Your task to perform on an android device: turn off picture-in-picture Image 0: 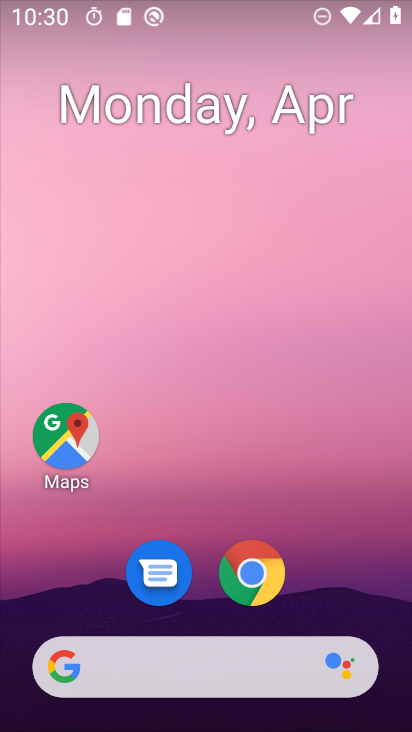
Step 0: click (262, 578)
Your task to perform on an android device: turn off picture-in-picture Image 1: 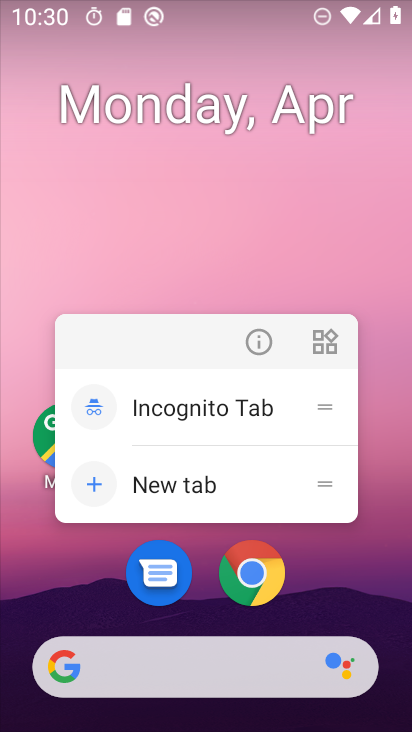
Step 1: click (262, 578)
Your task to perform on an android device: turn off picture-in-picture Image 2: 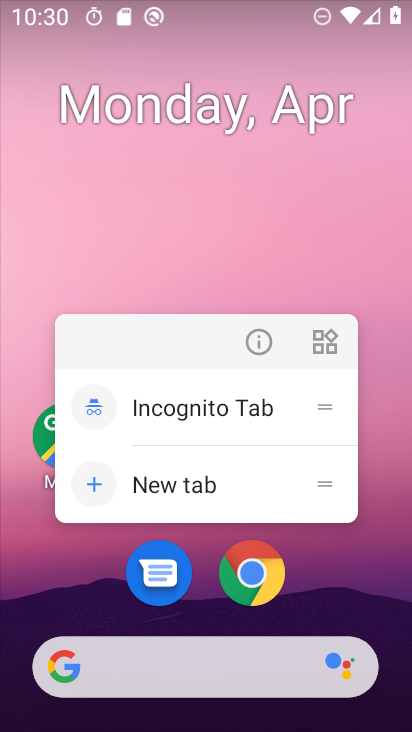
Step 2: click (262, 578)
Your task to perform on an android device: turn off picture-in-picture Image 3: 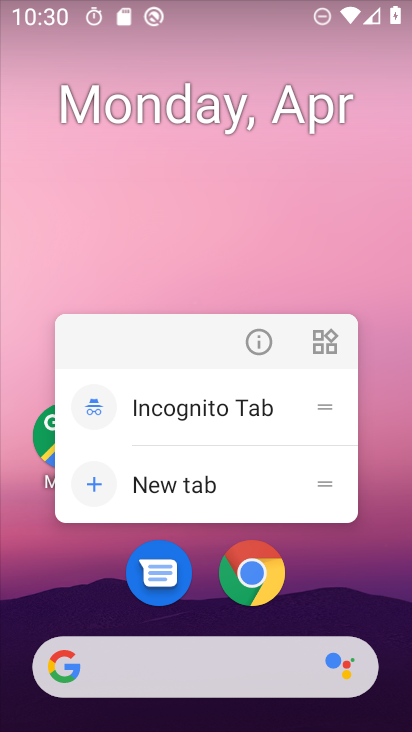
Step 3: click (262, 578)
Your task to perform on an android device: turn off picture-in-picture Image 4: 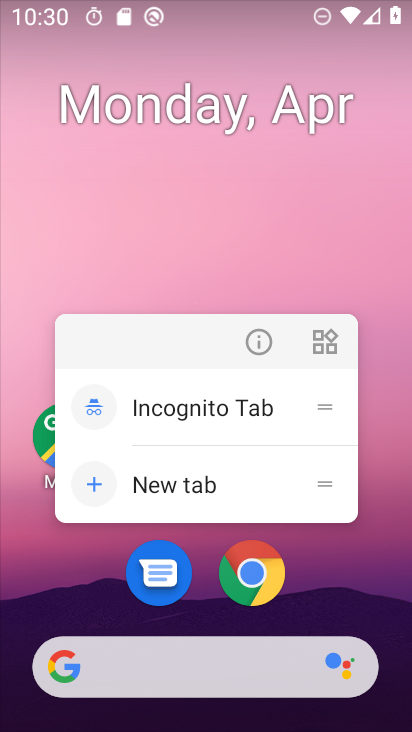
Step 4: click (261, 335)
Your task to perform on an android device: turn off picture-in-picture Image 5: 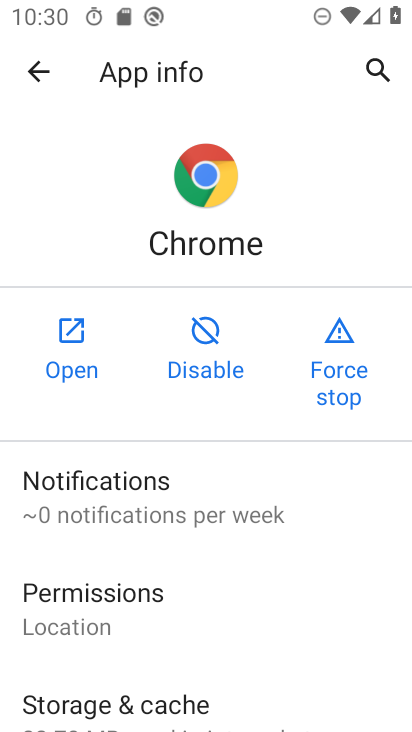
Step 5: drag from (257, 636) to (282, 225)
Your task to perform on an android device: turn off picture-in-picture Image 6: 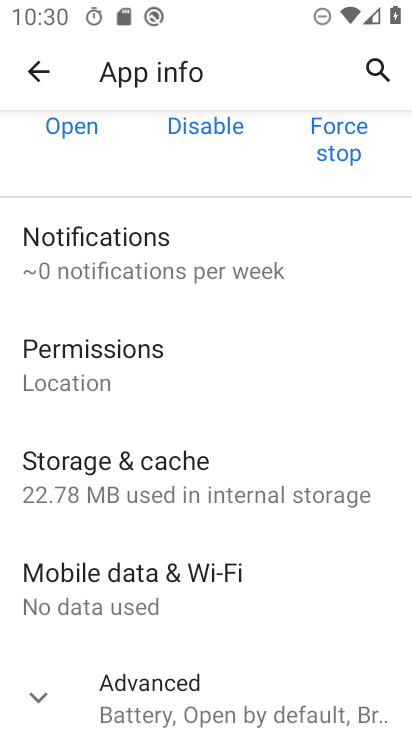
Step 6: drag from (319, 659) to (356, 344)
Your task to perform on an android device: turn off picture-in-picture Image 7: 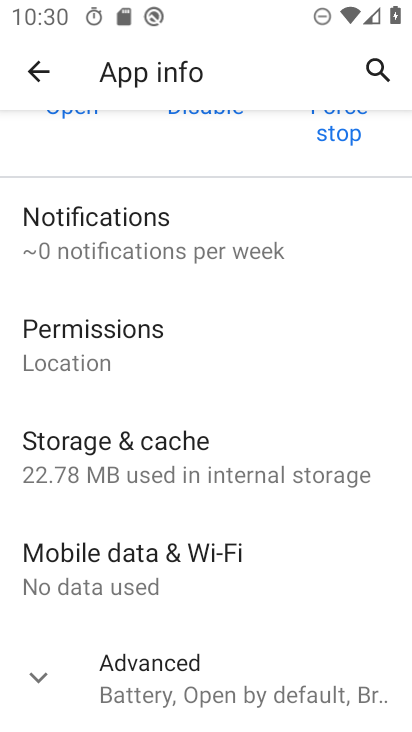
Step 7: drag from (267, 590) to (325, 189)
Your task to perform on an android device: turn off picture-in-picture Image 8: 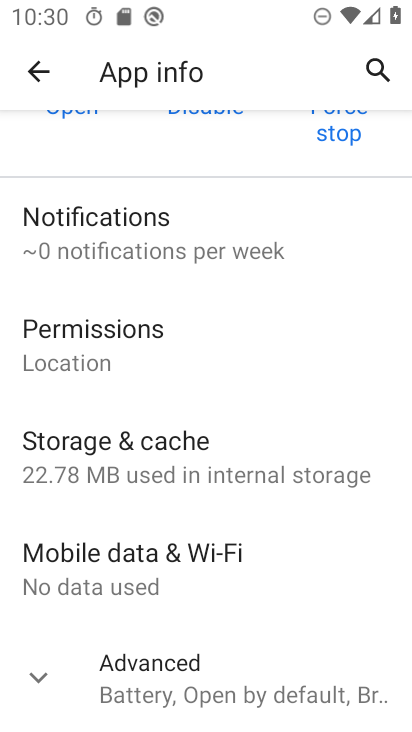
Step 8: click (218, 670)
Your task to perform on an android device: turn off picture-in-picture Image 9: 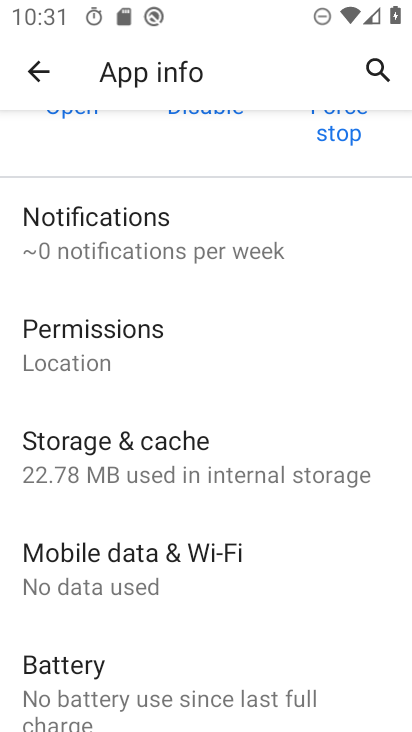
Step 9: drag from (214, 628) to (264, 249)
Your task to perform on an android device: turn off picture-in-picture Image 10: 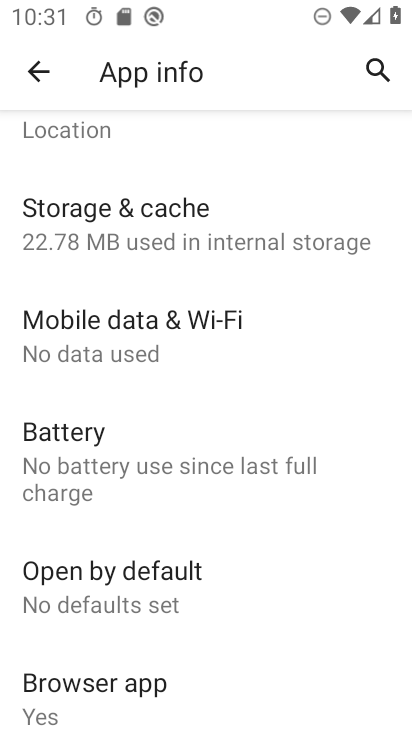
Step 10: drag from (199, 480) to (233, 85)
Your task to perform on an android device: turn off picture-in-picture Image 11: 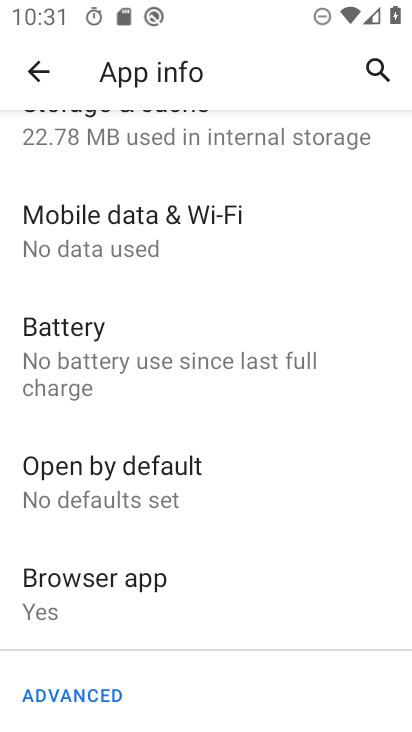
Step 11: drag from (162, 611) to (232, 176)
Your task to perform on an android device: turn off picture-in-picture Image 12: 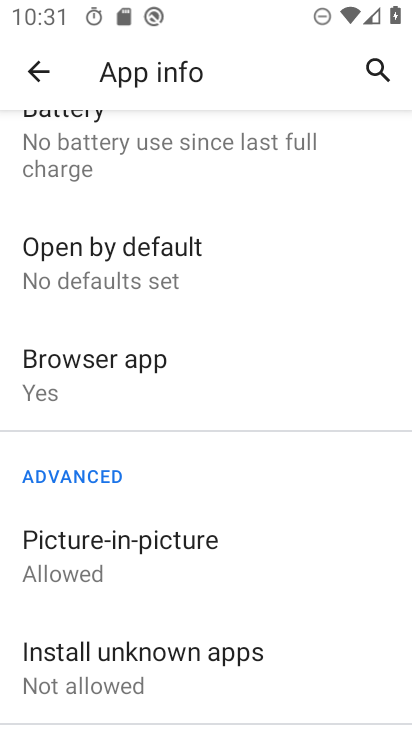
Step 12: drag from (280, 416) to (319, 164)
Your task to perform on an android device: turn off picture-in-picture Image 13: 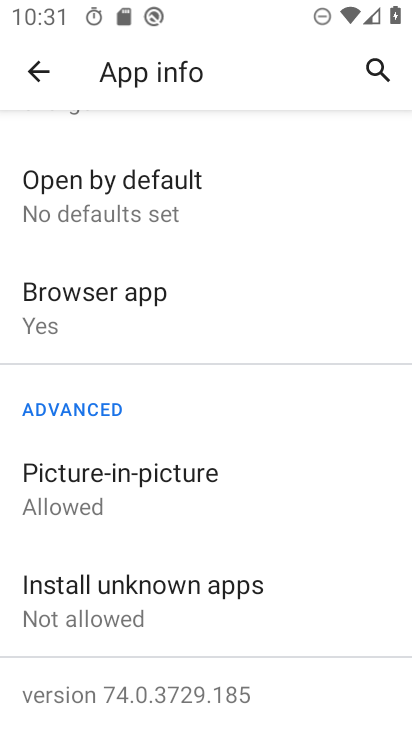
Step 13: click (144, 501)
Your task to perform on an android device: turn off picture-in-picture Image 14: 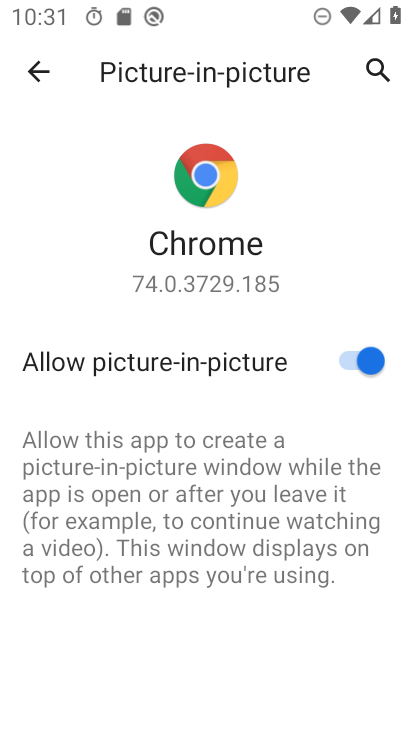
Step 14: click (348, 359)
Your task to perform on an android device: turn off picture-in-picture Image 15: 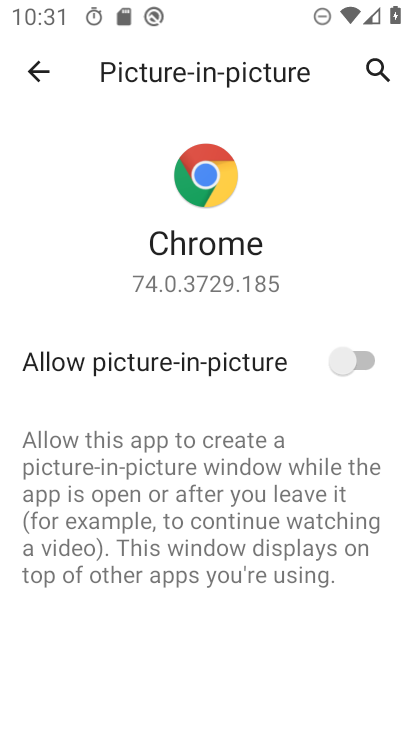
Step 15: task complete